Your task to perform on an android device: set the timer Image 0: 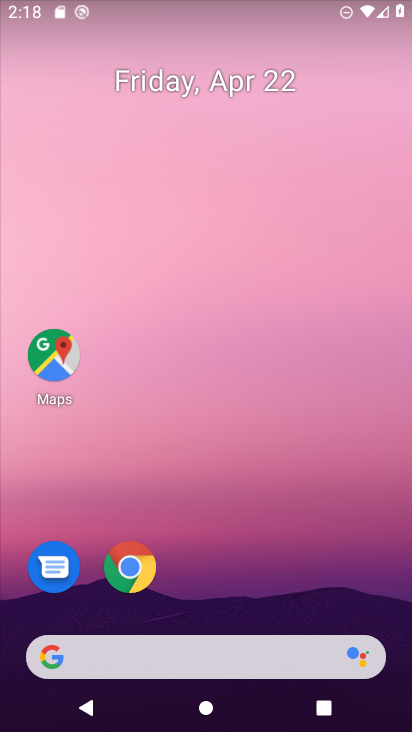
Step 0: drag from (262, 517) to (333, 145)
Your task to perform on an android device: set the timer Image 1: 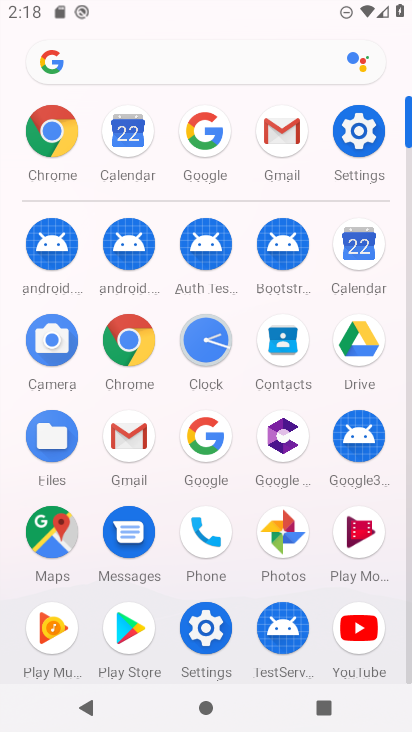
Step 1: click (196, 344)
Your task to perform on an android device: set the timer Image 2: 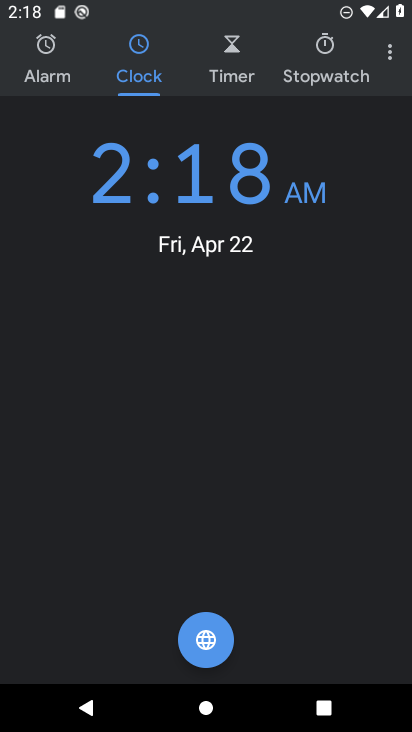
Step 2: click (237, 73)
Your task to perform on an android device: set the timer Image 3: 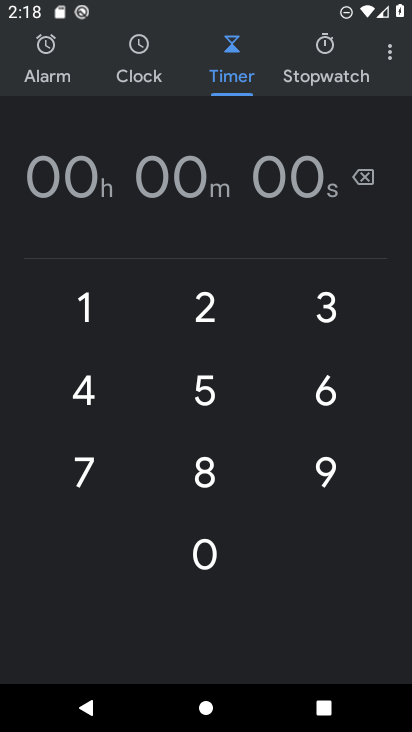
Step 3: click (205, 311)
Your task to perform on an android device: set the timer Image 4: 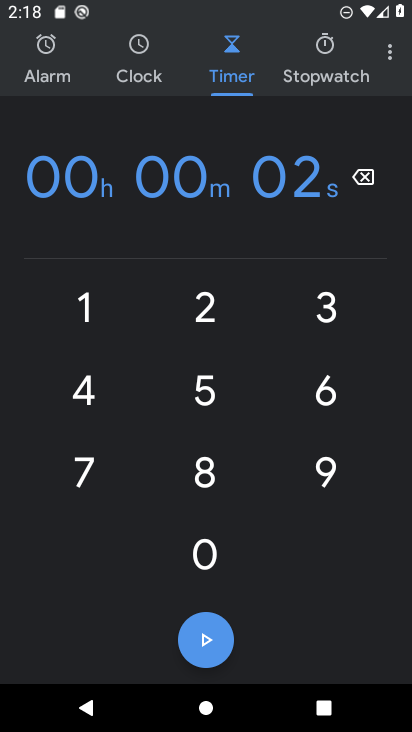
Step 4: click (208, 626)
Your task to perform on an android device: set the timer Image 5: 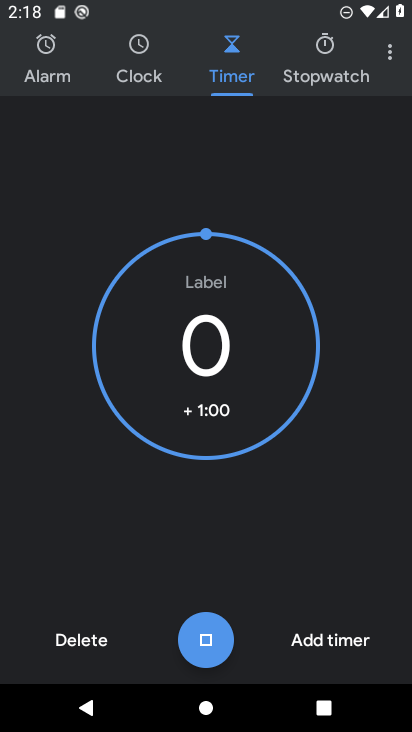
Step 5: task complete